Your task to perform on an android device: Open Chrome and go to settings Image 0: 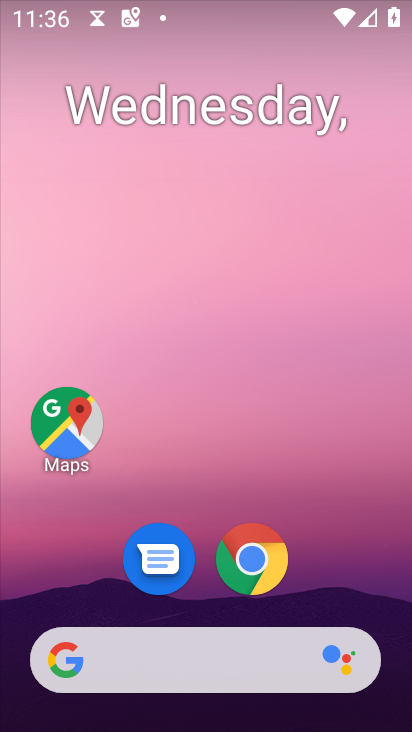
Step 0: click (267, 577)
Your task to perform on an android device: Open Chrome and go to settings Image 1: 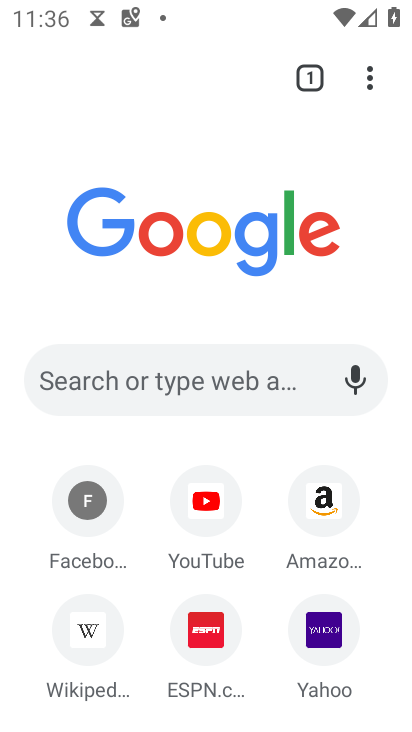
Step 1: click (389, 78)
Your task to perform on an android device: Open Chrome and go to settings Image 2: 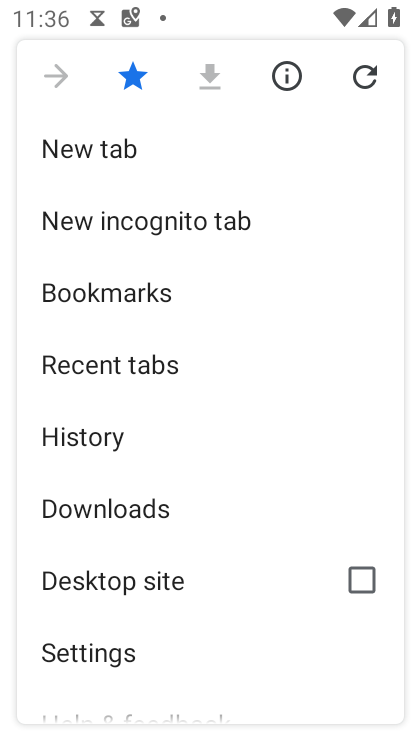
Step 2: click (171, 648)
Your task to perform on an android device: Open Chrome and go to settings Image 3: 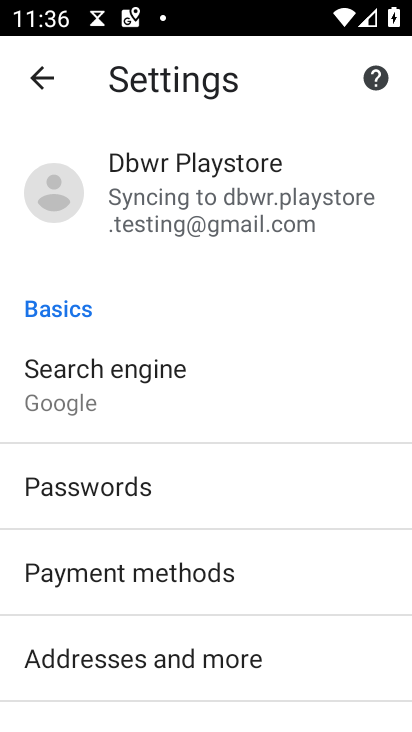
Step 3: task complete